Your task to perform on an android device: Open display settings Image 0: 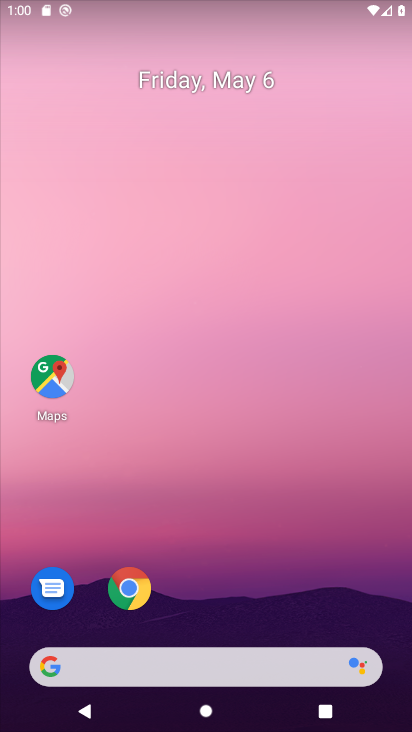
Step 0: drag from (368, 598) to (339, 162)
Your task to perform on an android device: Open display settings Image 1: 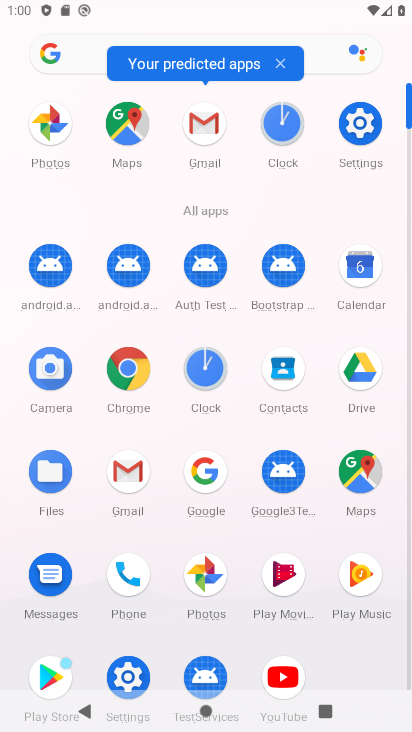
Step 1: click (368, 125)
Your task to perform on an android device: Open display settings Image 2: 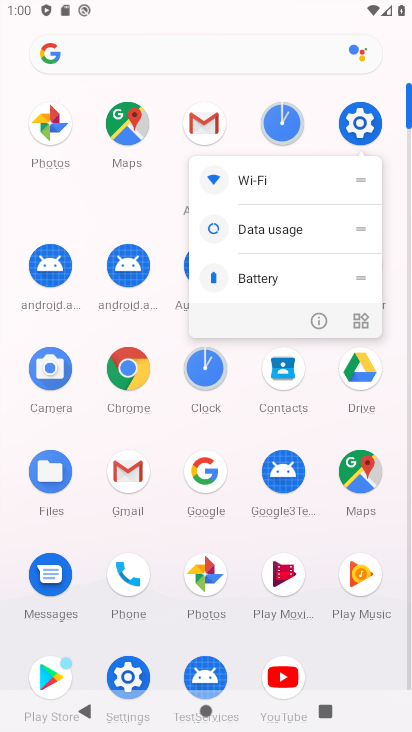
Step 2: click (365, 135)
Your task to perform on an android device: Open display settings Image 3: 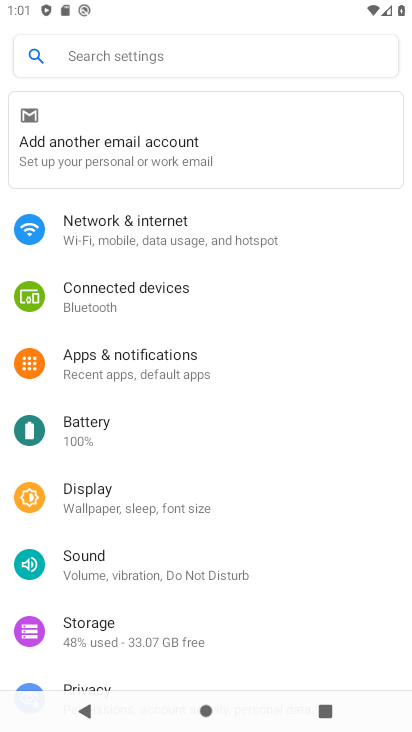
Step 3: click (102, 493)
Your task to perform on an android device: Open display settings Image 4: 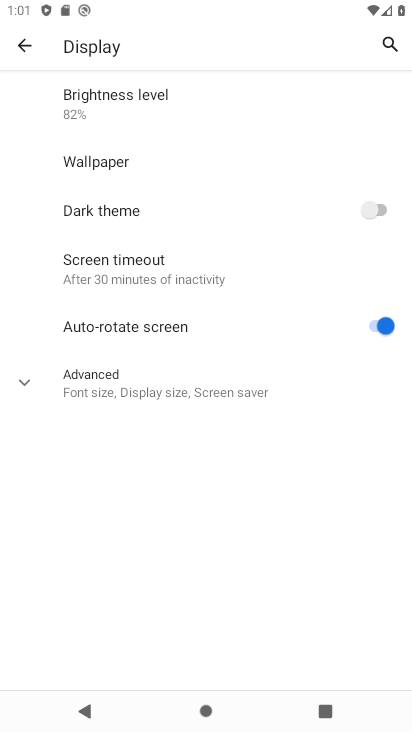
Step 4: task complete